Your task to perform on an android device: What's the weather? Image 0: 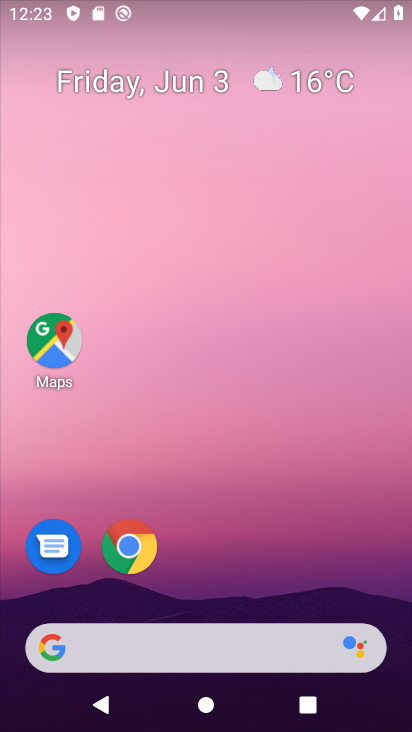
Step 0: click (272, 82)
Your task to perform on an android device: What's the weather? Image 1: 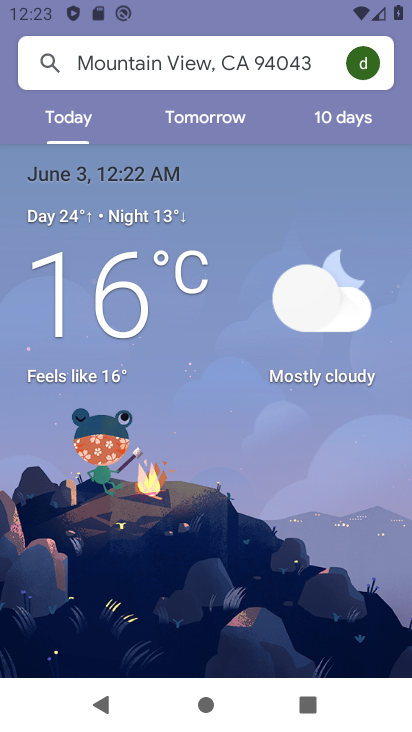
Step 1: task complete